Your task to perform on an android device: Go to notification settings Image 0: 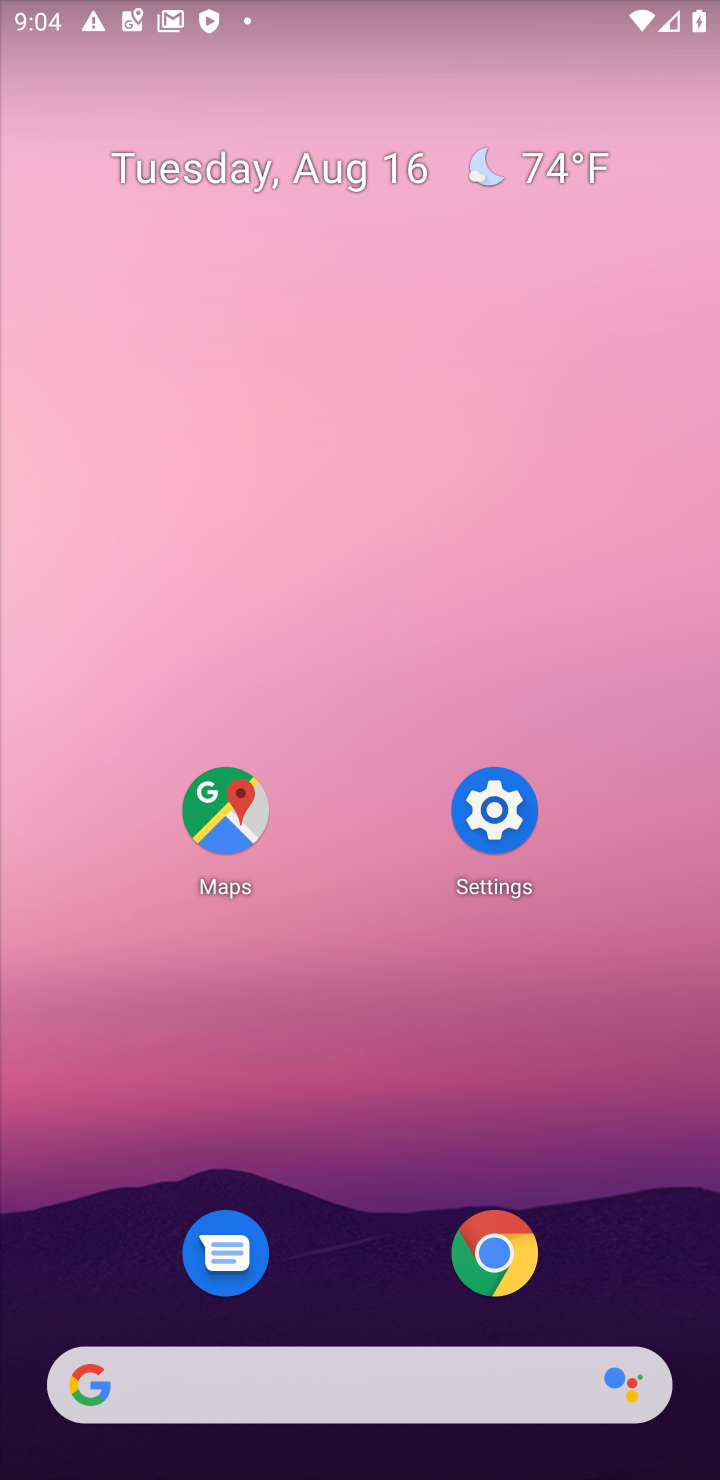
Step 0: click (489, 816)
Your task to perform on an android device: Go to notification settings Image 1: 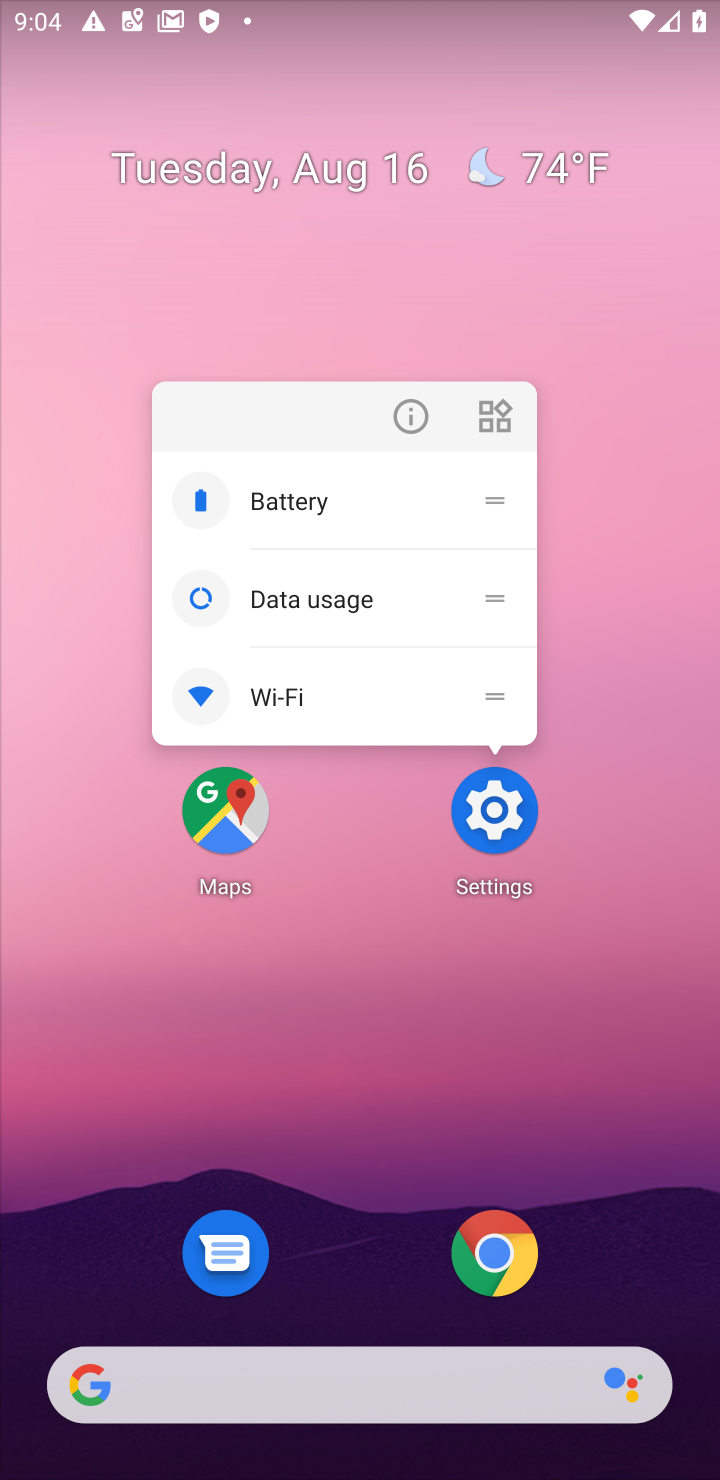
Step 1: click (489, 818)
Your task to perform on an android device: Go to notification settings Image 2: 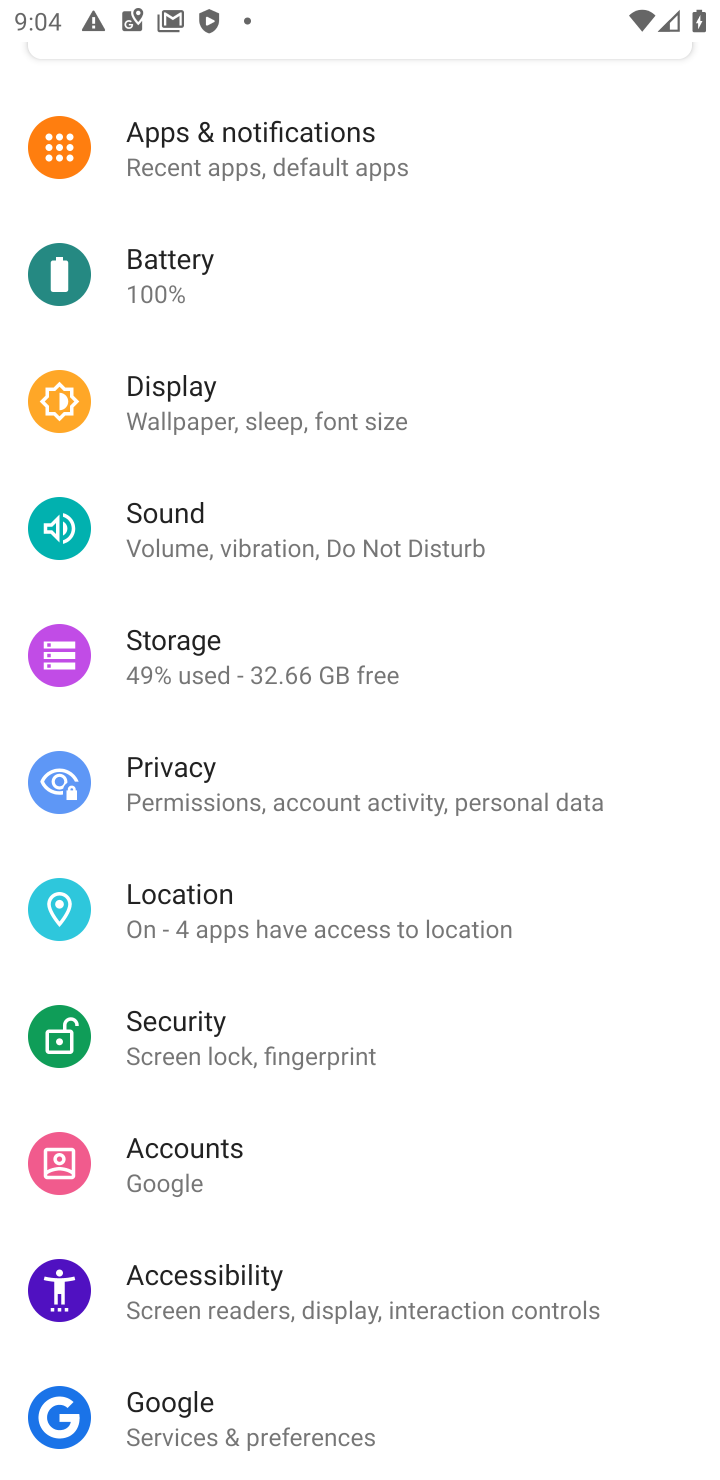
Step 2: click (269, 144)
Your task to perform on an android device: Go to notification settings Image 3: 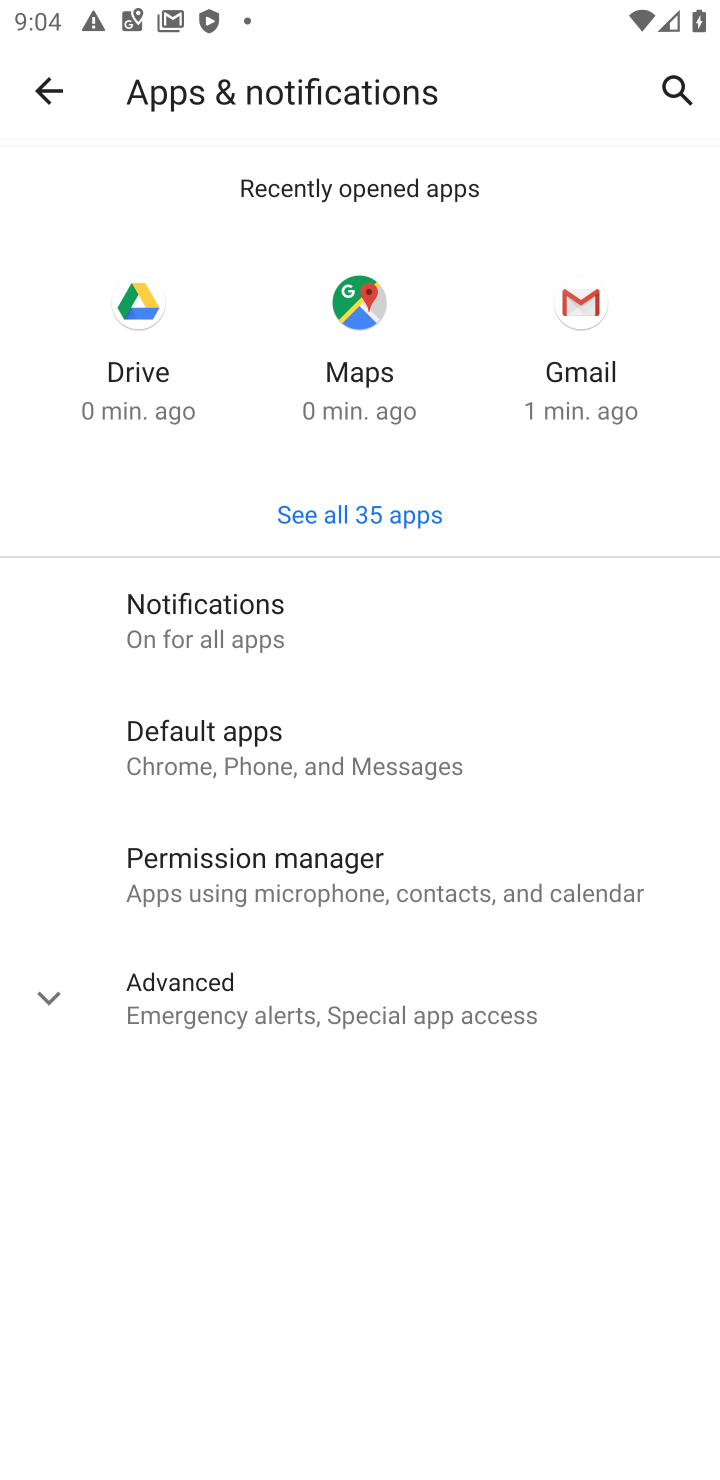
Step 3: click (196, 617)
Your task to perform on an android device: Go to notification settings Image 4: 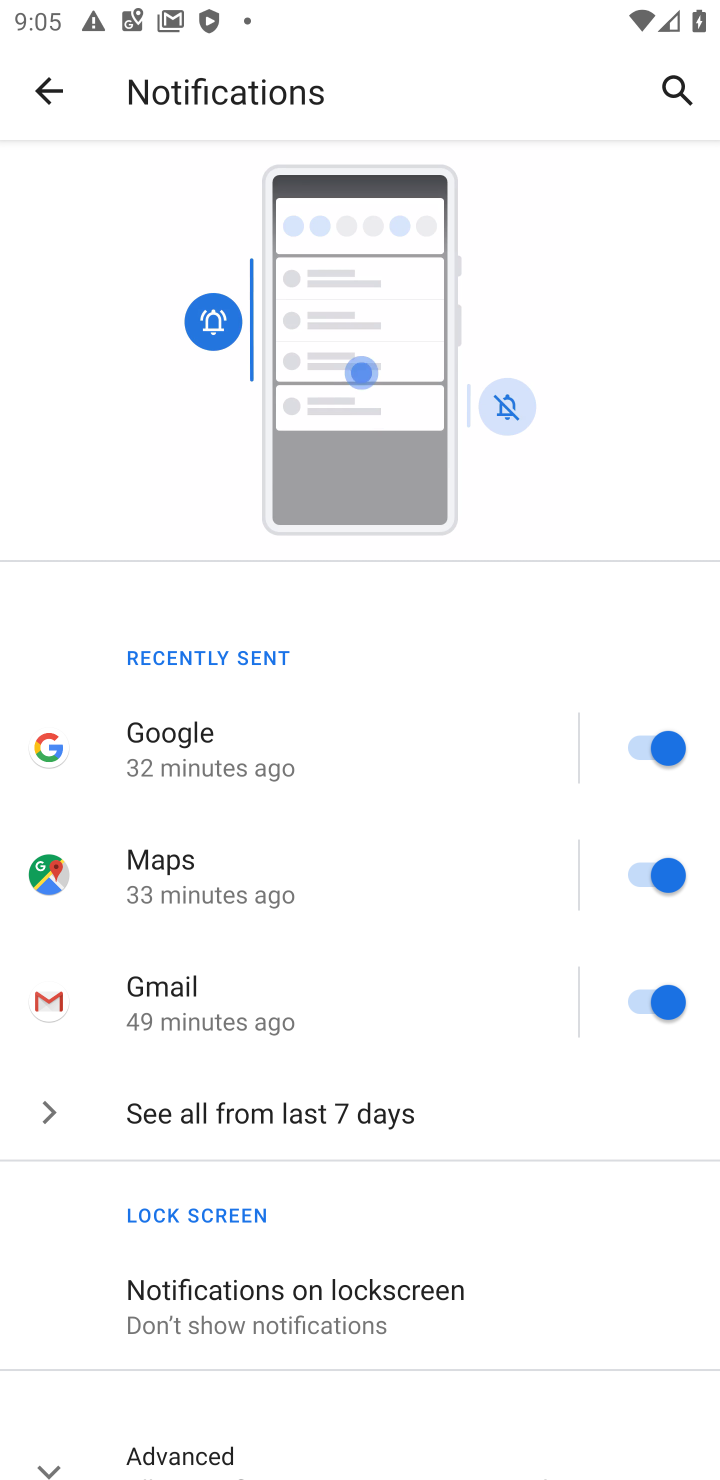
Step 4: task complete